Your task to perform on an android device: Open Google Chrome and click the shortcut for Amazon.com Image 0: 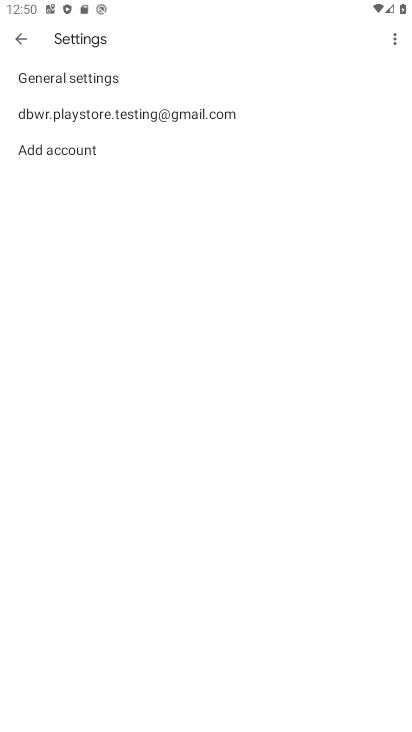
Step 0: press home button
Your task to perform on an android device: Open Google Chrome and click the shortcut for Amazon.com Image 1: 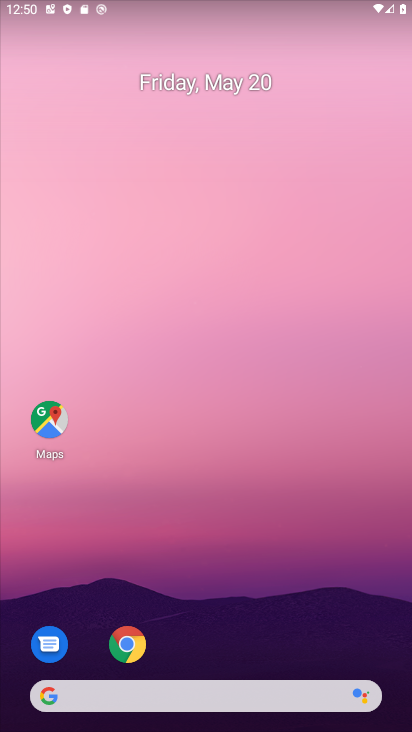
Step 1: drag from (229, 583) to (170, 35)
Your task to perform on an android device: Open Google Chrome and click the shortcut for Amazon.com Image 2: 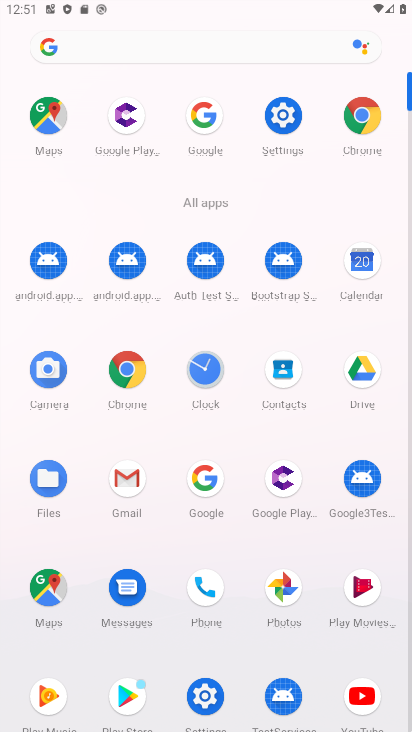
Step 2: click (363, 134)
Your task to perform on an android device: Open Google Chrome and click the shortcut for Amazon.com Image 3: 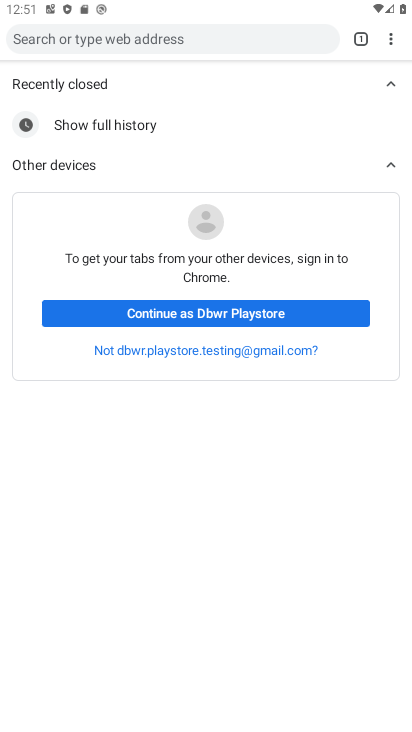
Step 3: click (198, 41)
Your task to perform on an android device: Open Google Chrome and click the shortcut for Amazon.com Image 4: 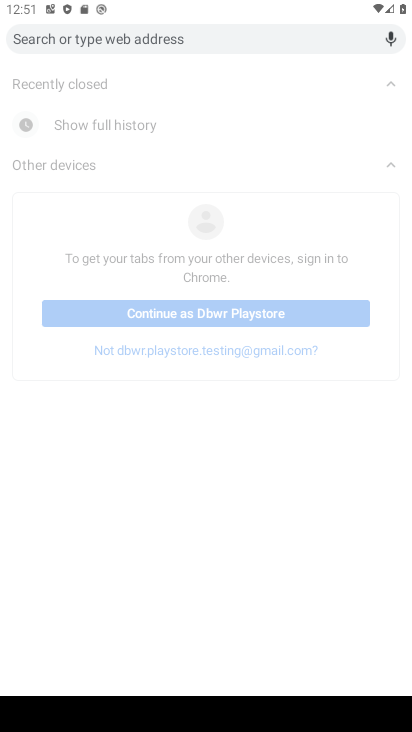
Step 4: type "amazon"
Your task to perform on an android device: Open Google Chrome and click the shortcut for Amazon.com Image 5: 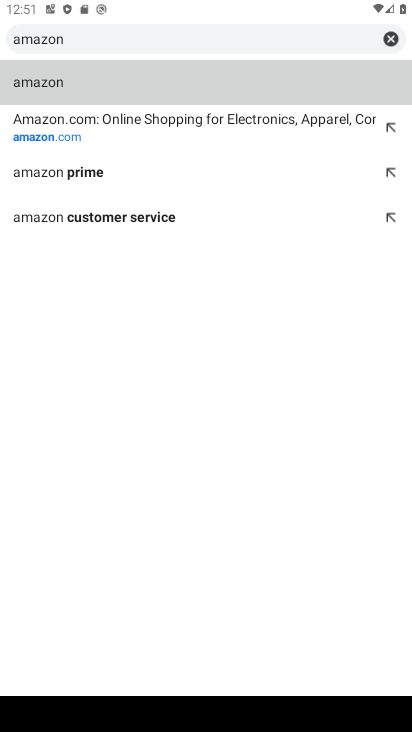
Step 5: click (88, 128)
Your task to perform on an android device: Open Google Chrome and click the shortcut for Amazon.com Image 6: 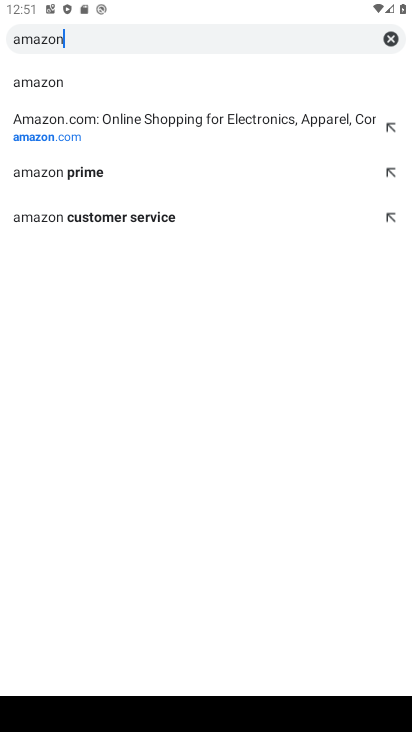
Step 6: click (79, 127)
Your task to perform on an android device: Open Google Chrome and click the shortcut for Amazon.com Image 7: 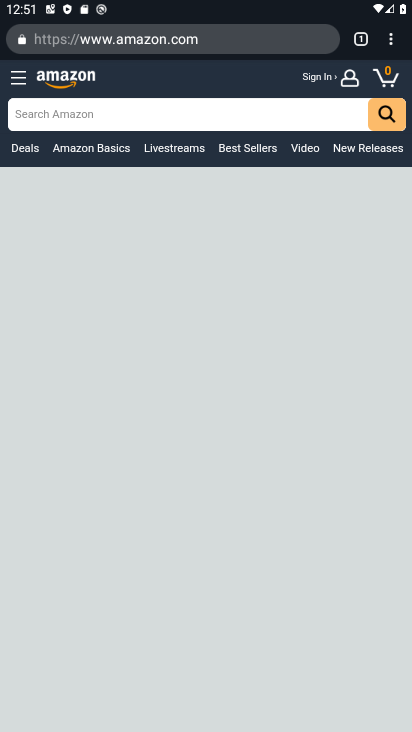
Step 7: drag from (398, 46) to (303, 376)
Your task to perform on an android device: Open Google Chrome and click the shortcut for Amazon.com Image 8: 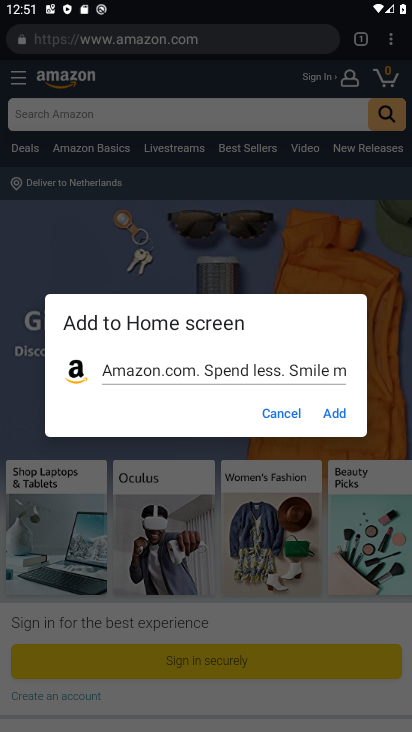
Step 8: click (344, 416)
Your task to perform on an android device: Open Google Chrome and click the shortcut for Amazon.com Image 9: 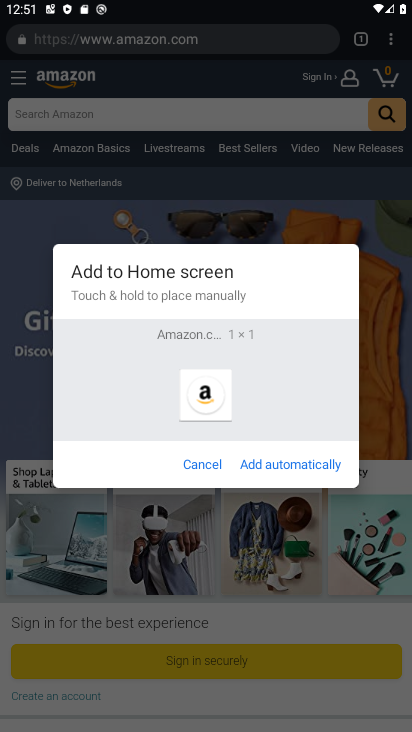
Step 9: click (321, 464)
Your task to perform on an android device: Open Google Chrome and click the shortcut for Amazon.com Image 10: 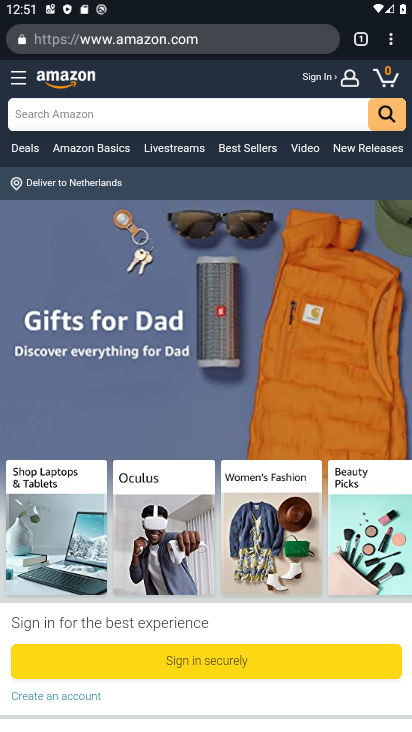
Step 10: task complete